Your task to perform on an android device: delete the emails in spam in the gmail app Image 0: 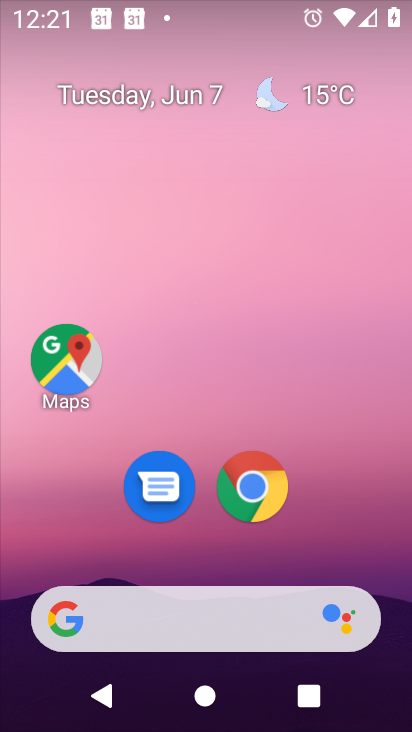
Step 0: drag from (285, 331) to (204, 10)
Your task to perform on an android device: delete the emails in spam in the gmail app Image 1: 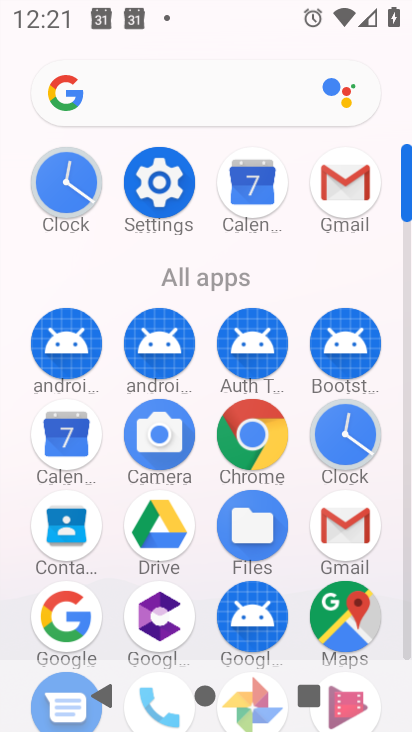
Step 1: click (356, 524)
Your task to perform on an android device: delete the emails in spam in the gmail app Image 2: 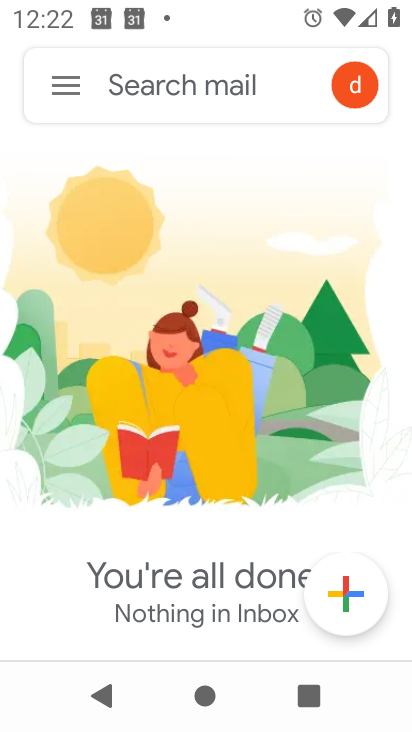
Step 2: click (61, 83)
Your task to perform on an android device: delete the emails in spam in the gmail app Image 3: 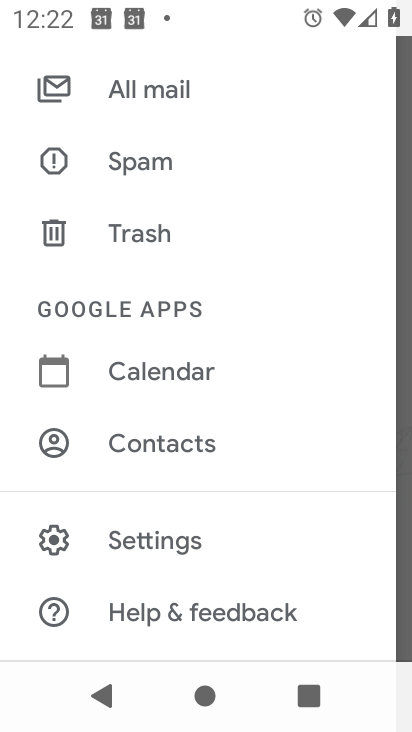
Step 3: click (222, 96)
Your task to perform on an android device: delete the emails in spam in the gmail app Image 4: 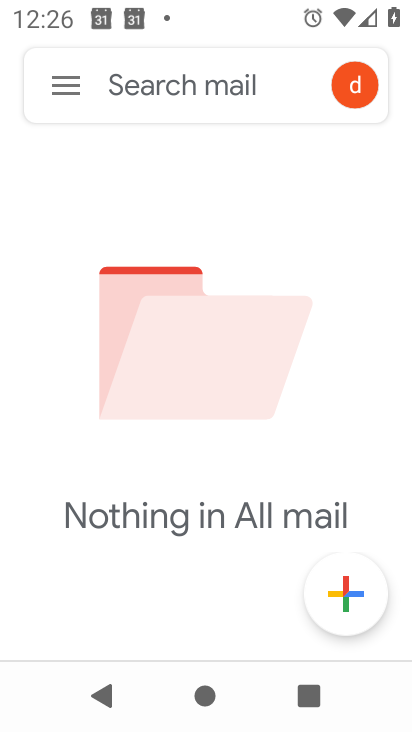
Step 4: task complete